Your task to perform on an android device: Open settings Image 0: 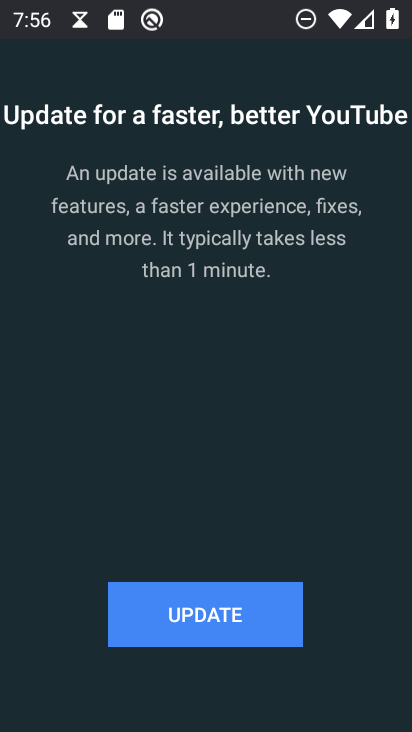
Step 0: press home button
Your task to perform on an android device: Open settings Image 1: 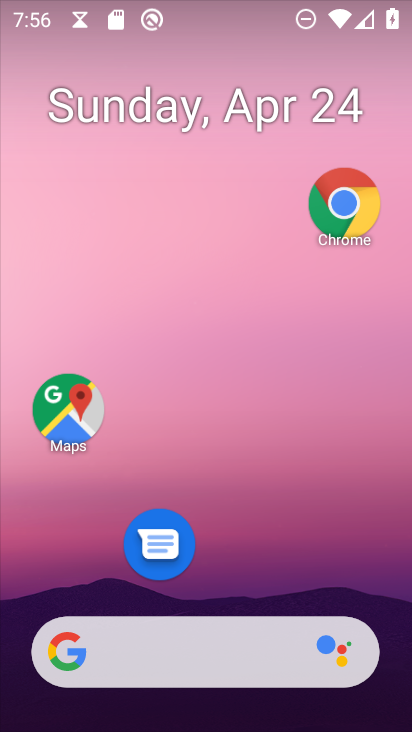
Step 1: drag from (170, 661) to (341, 47)
Your task to perform on an android device: Open settings Image 2: 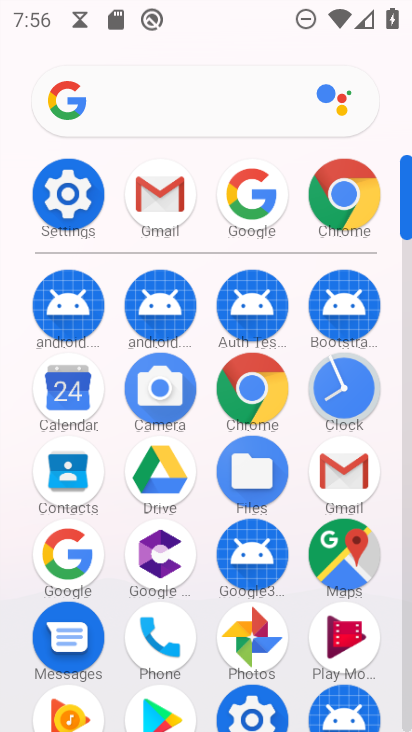
Step 2: click (66, 206)
Your task to perform on an android device: Open settings Image 3: 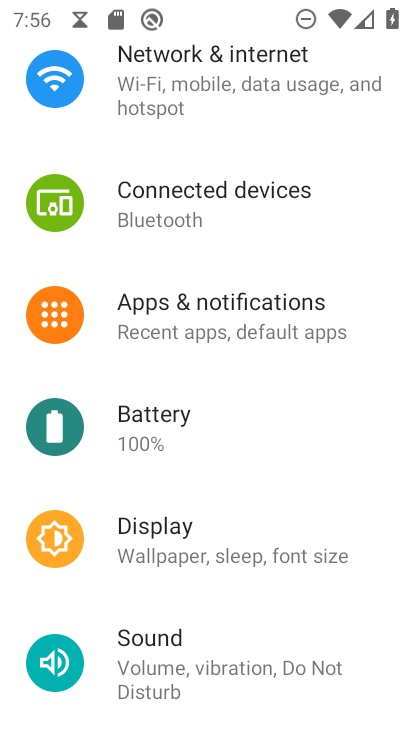
Step 3: task complete